Your task to perform on an android device: turn on data saver in the chrome app Image 0: 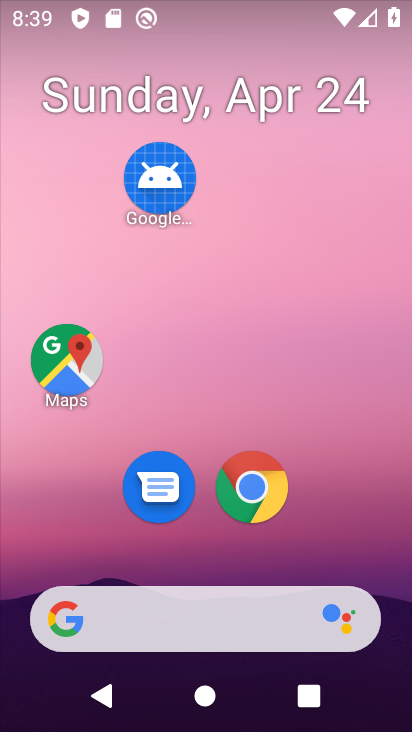
Step 0: click (262, 493)
Your task to perform on an android device: turn on data saver in the chrome app Image 1: 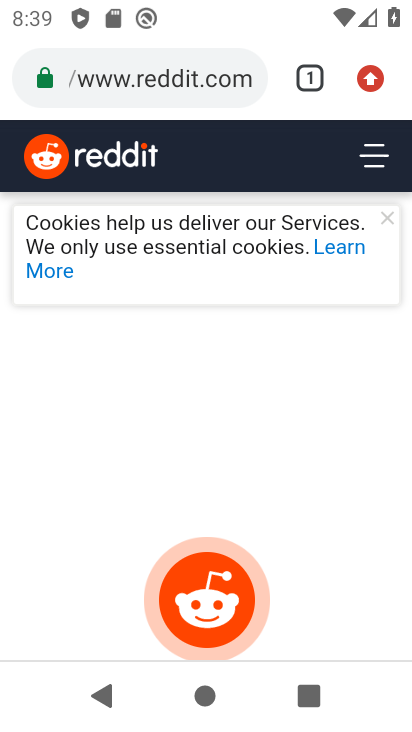
Step 1: drag from (371, 79) to (109, 548)
Your task to perform on an android device: turn on data saver in the chrome app Image 2: 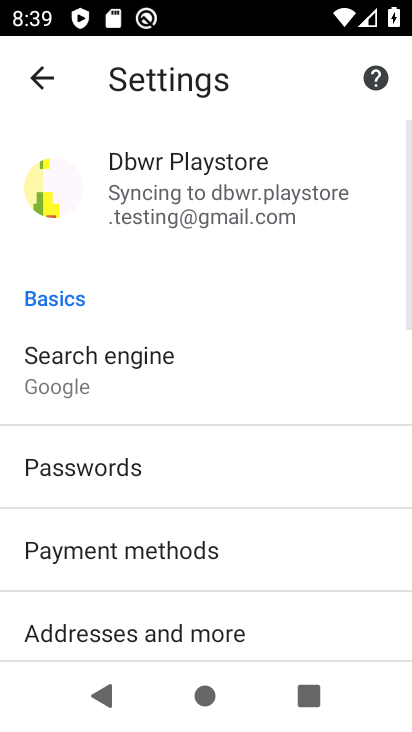
Step 2: drag from (327, 620) to (284, 162)
Your task to perform on an android device: turn on data saver in the chrome app Image 3: 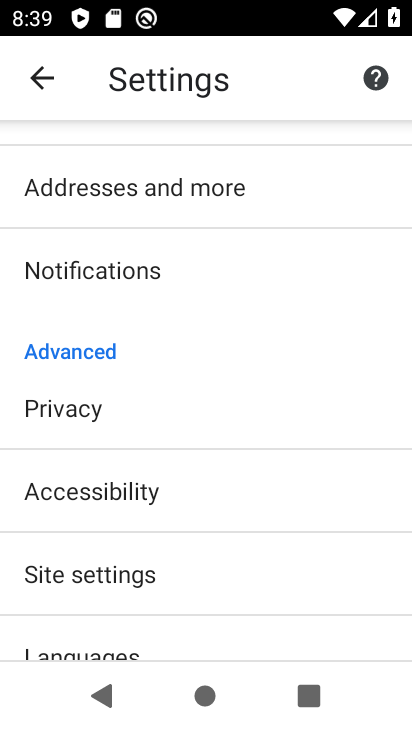
Step 3: drag from (329, 598) to (333, 173)
Your task to perform on an android device: turn on data saver in the chrome app Image 4: 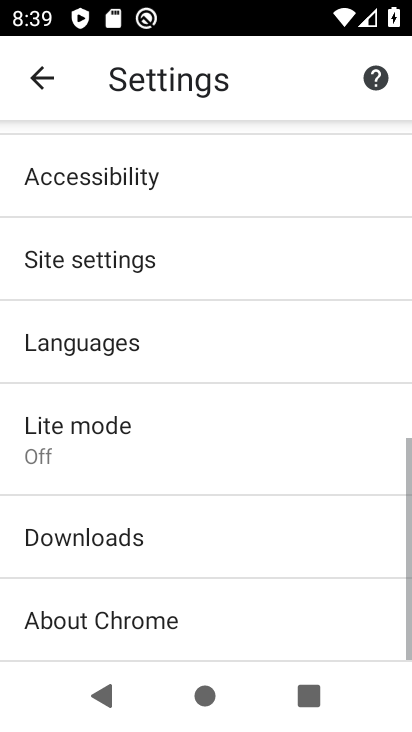
Step 4: click (99, 427)
Your task to perform on an android device: turn on data saver in the chrome app Image 5: 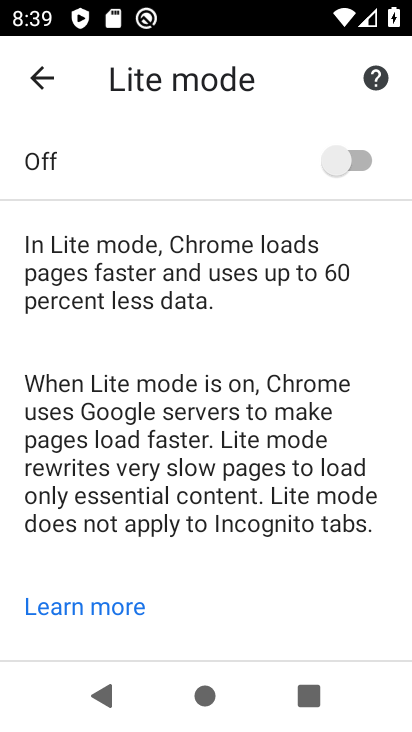
Step 5: click (348, 167)
Your task to perform on an android device: turn on data saver in the chrome app Image 6: 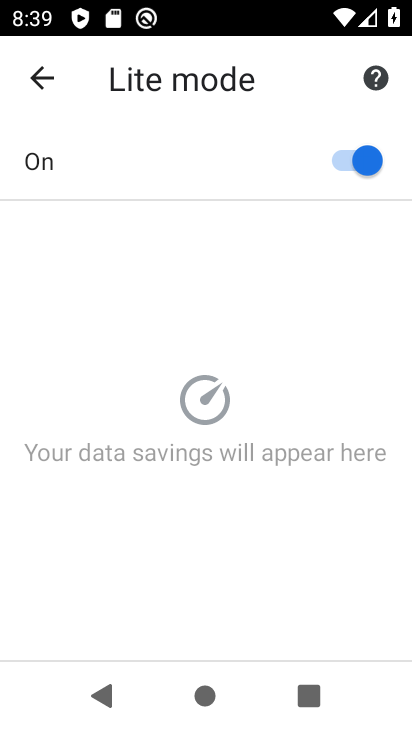
Step 6: task complete